Your task to perform on an android device: turn on location history Image 0: 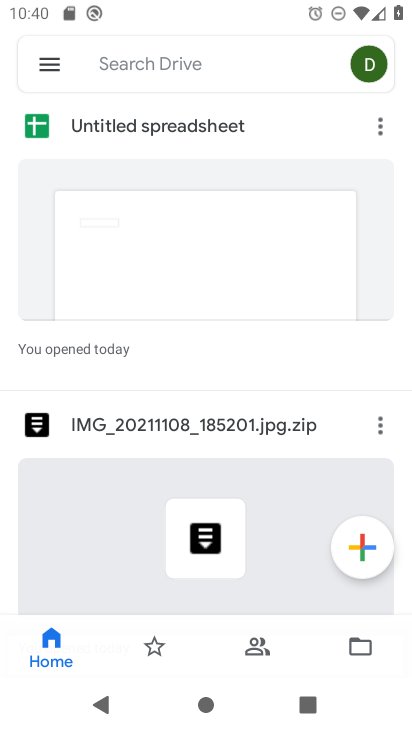
Step 0: press home button
Your task to perform on an android device: turn on location history Image 1: 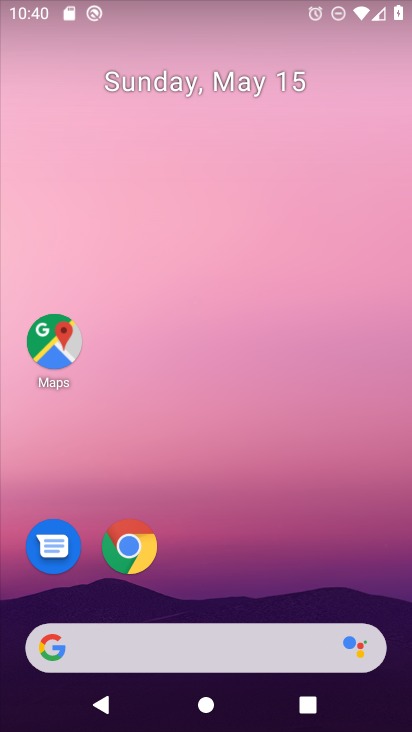
Step 1: drag from (311, 531) to (309, 98)
Your task to perform on an android device: turn on location history Image 2: 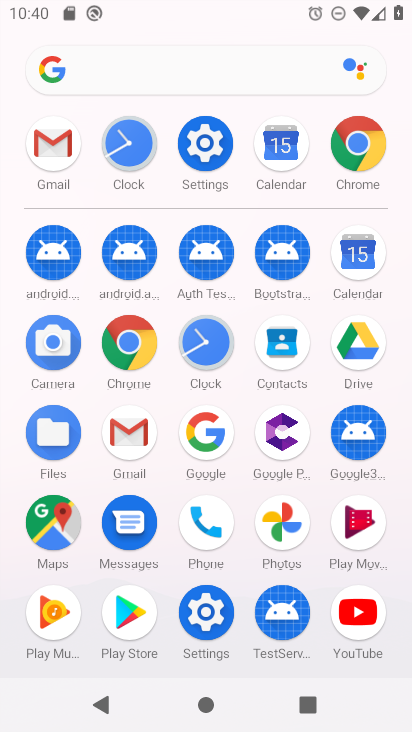
Step 2: click (210, 142)
Your task to perform on an android device: turn on location history Image 3: 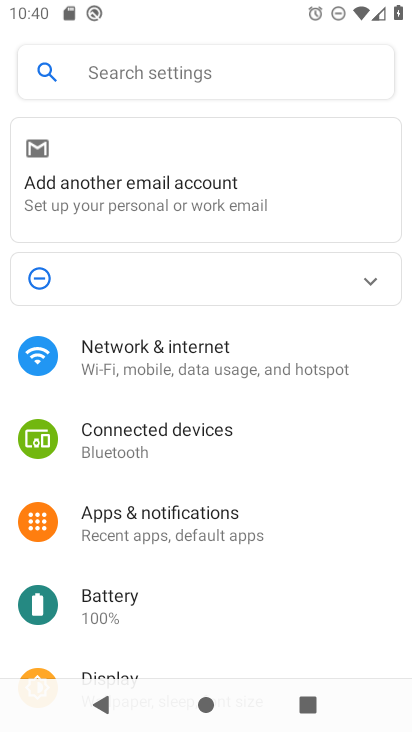
Step 3: drag from (273, 571) to (340, 112)
Your task to perform on an android device: turn on location history Image 4: 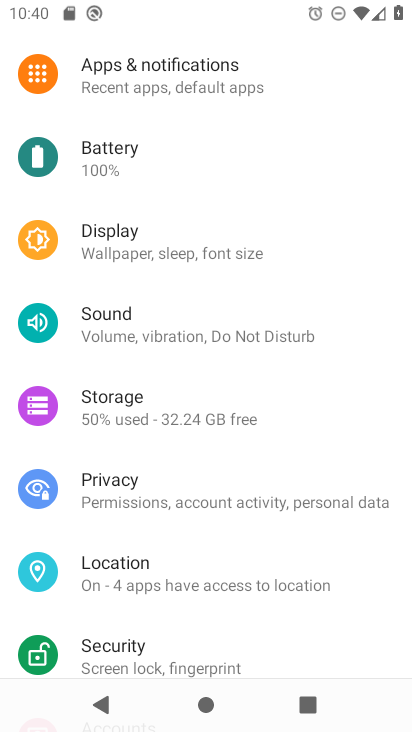
Step 4: drag from (234, 515) to (277, 297)
Your task to perform on an android device: turn on location history Image 5: 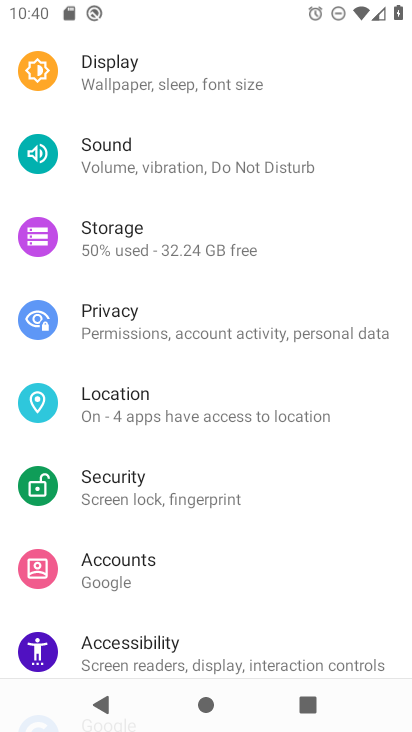
Step 5: click (179, 409)
Your task to perform on an android device: turn on location history Image 6: 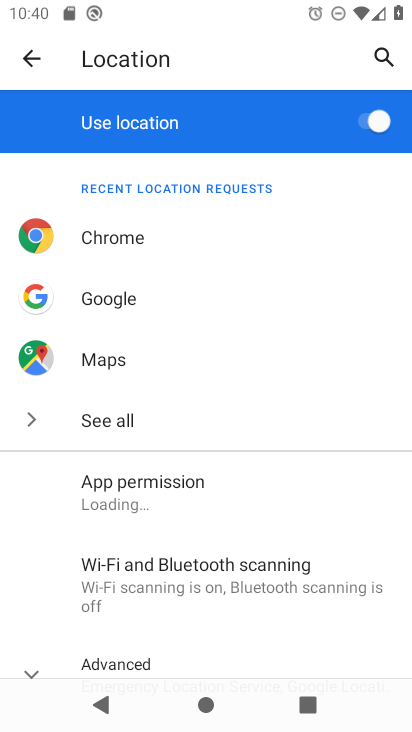
Step 6: drag from (231, 557) to (307, 198)
Your task to perform on an android device: turn on location history Image 7: 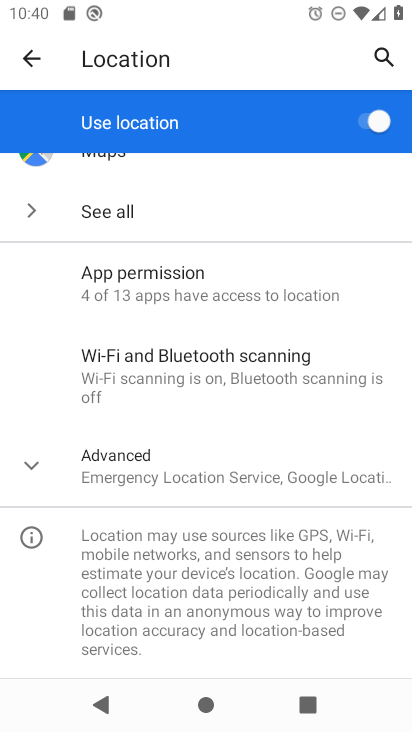
Step 7: click (140, 476)
Your task to perform on an android device: turn on location history Image 8: 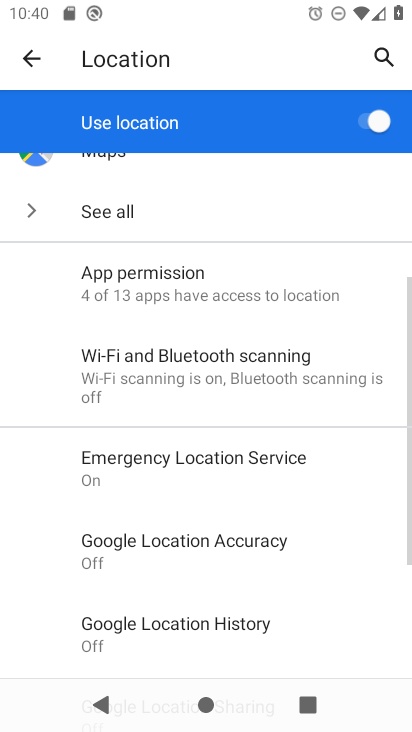
Step 8: drag from (255, 616) to (282, 386)
Your task to perform on an android device: turn on location history Image 9: 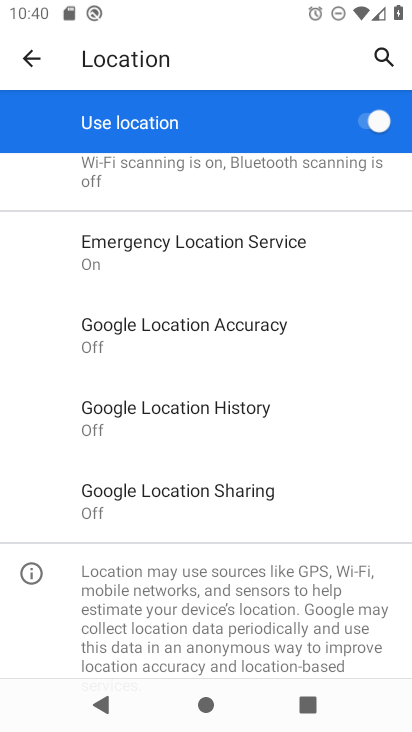
Step 9: click (228, 424)
Your task to perform on an android device: turn on location history Image 10: 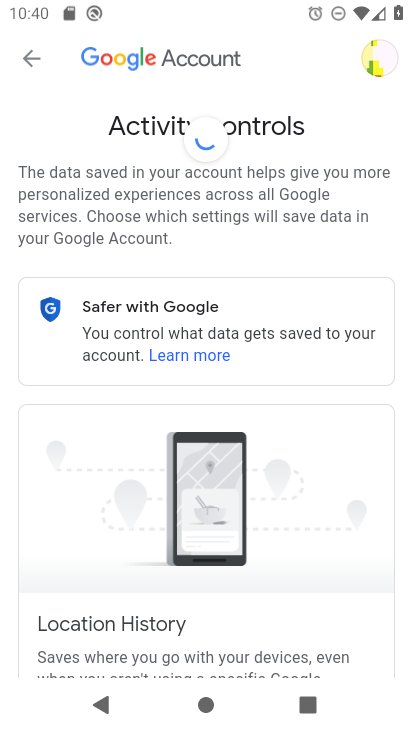
Step 10: drag from (283, 530) to (363, 164)
Your task to perform on an android device: turn on location history Image 11: 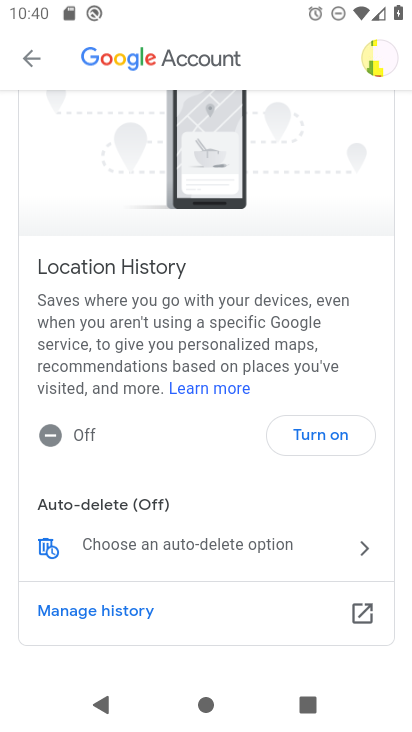
Step 11: click (318, 428)
Your task to perform on an android device: turn on location history Image 12: 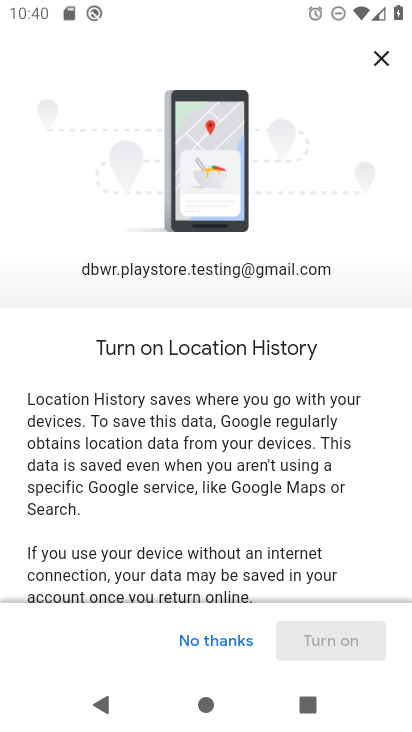
Step 12: drag from (265, 507) to (344, 134)
Your task to perform on an android device: turn on location history Image 13: 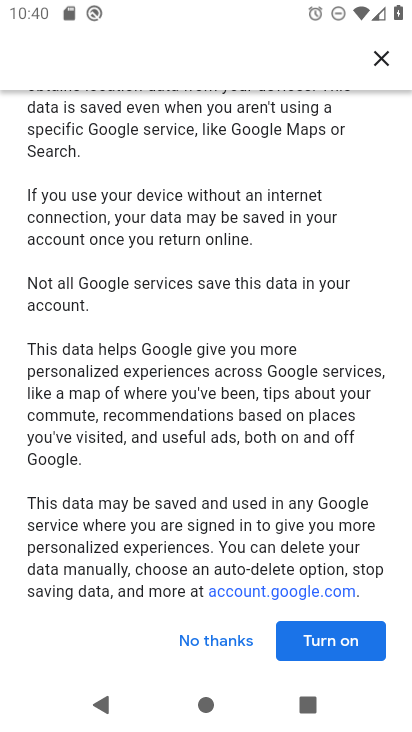
Step 13: click (333, 639)
Your task to perform on an android device: turn on location history Image 14: 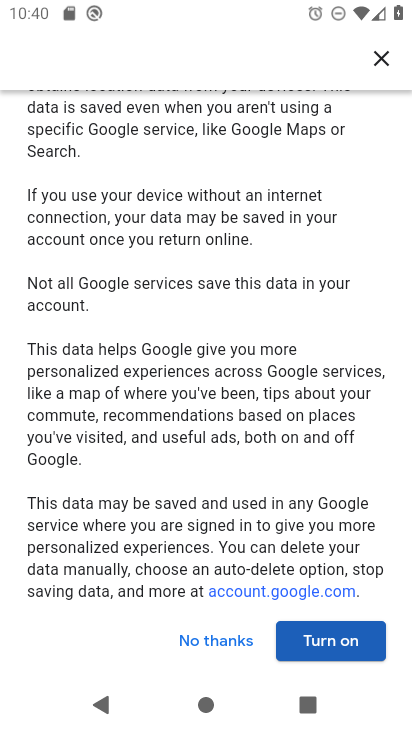
Step 14: click (315, 643)
Your task to perform on an android device: turn on location history Image 15: 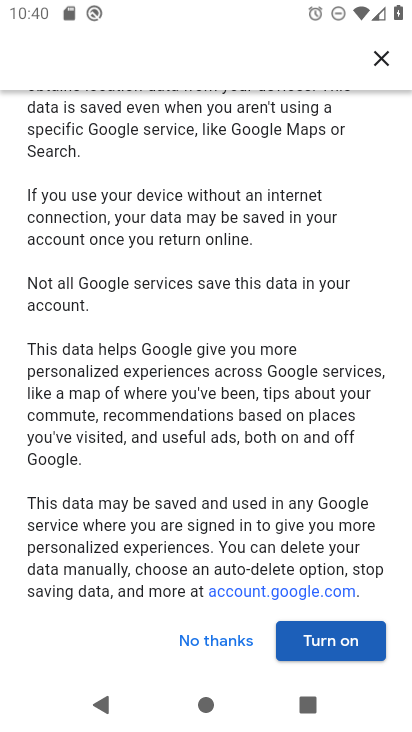
Step 15: drag from (302, 483) to (324, 192)
Your task to perform on an android device: turn on location history Image 16: 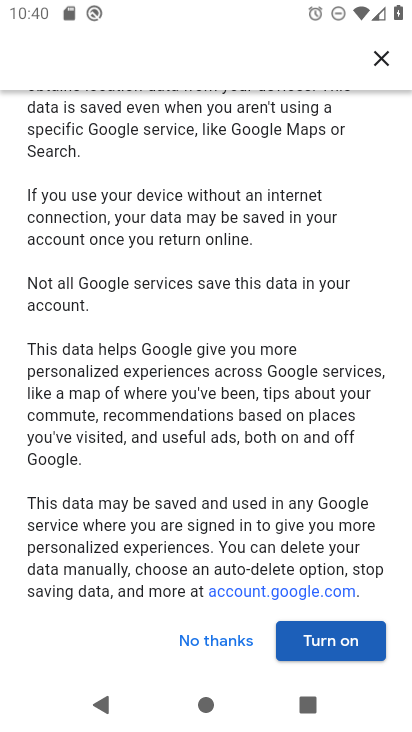
Step 16: click (340, 649)
Your task to perform on an android device: turn on location history Image 17: 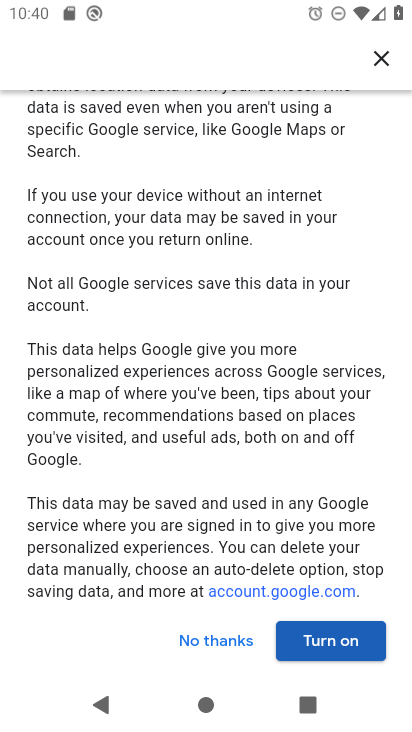
Step 17: click (335, 628)
Your task to perform on an android device: turn on location history Image 18: 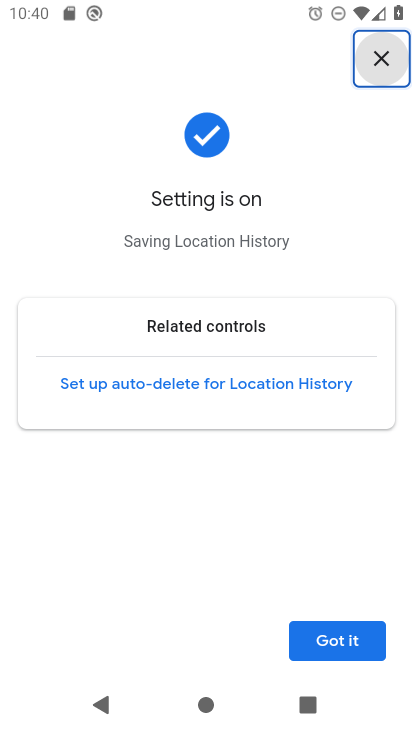
Step 18: task complete